Your task to perform on an android device: add a label to a message in the gmail app Image 0: 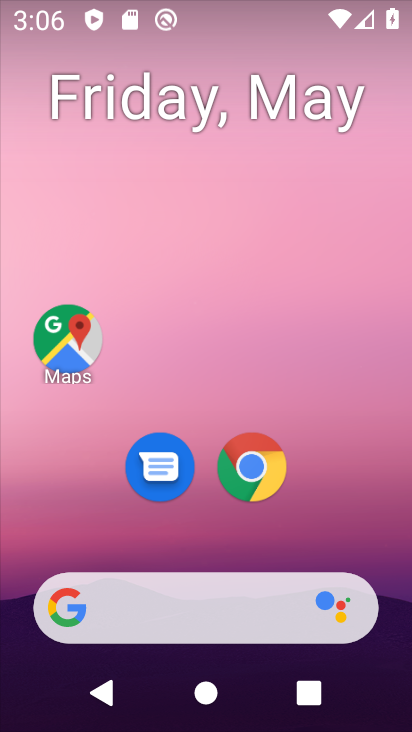
Step 0: drag from (338, 470) to (250, 0)
Your task to perform on an android device: add a label to a message in the gmail app Image 1: 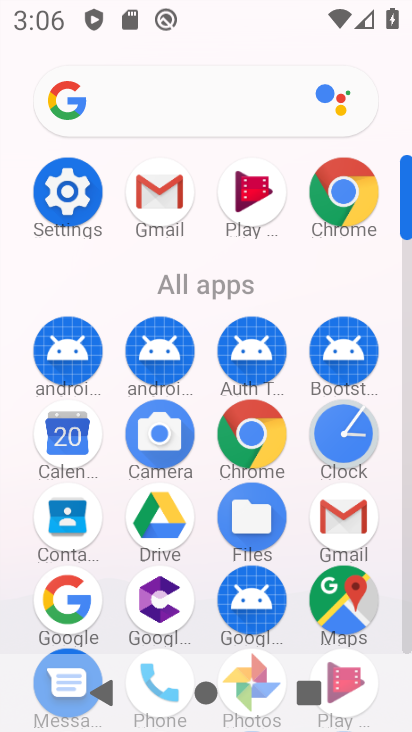
Step 1: click (162, 199)
Your task to perform on an android device: add a label to a message in the gmail app Image 2: 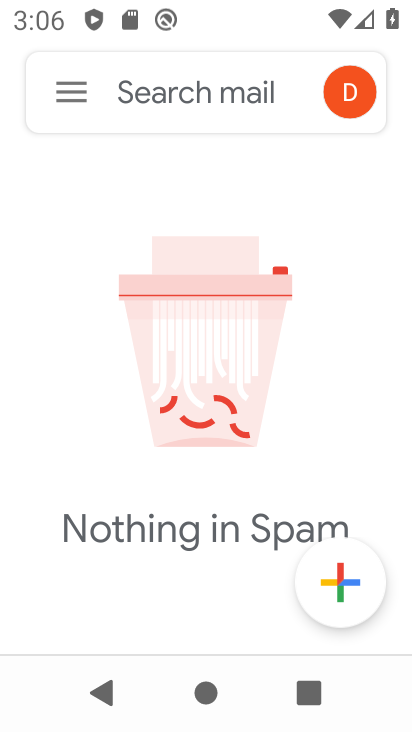
Step 2: click (79, 99)
Your task to perform on an android device: add a label to a message in the gmail app Image 3: 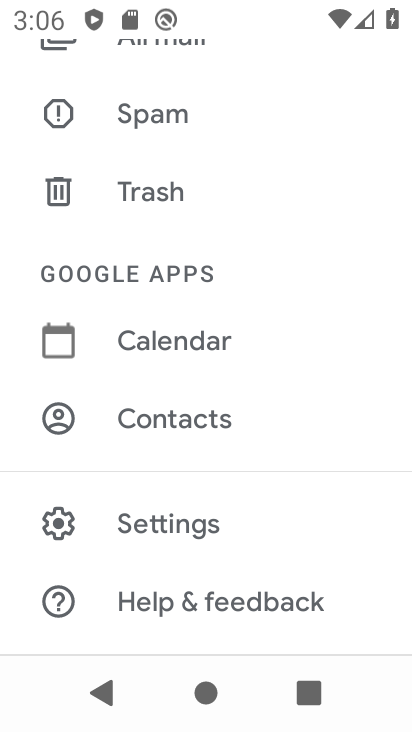
Step 3: drag from (167, 144) to (198, 681)
Your task to perform on an android device: add a label to a message in the gmail app Image 4: 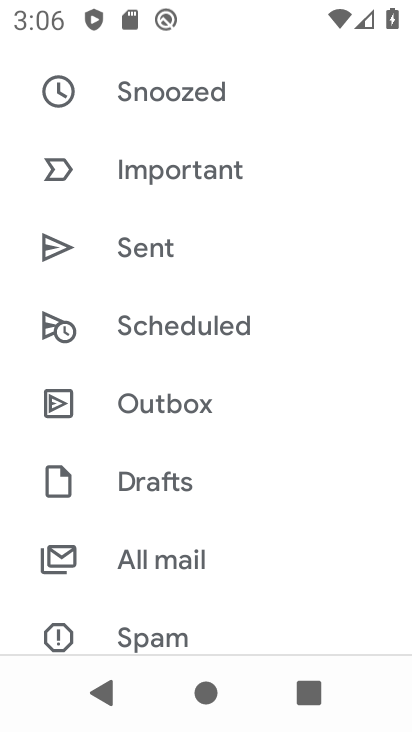
Step 4: drag from (231, 166) to (237, 668)
Your task to perform on an android device: add a label to a message in the gmail app Image 5: 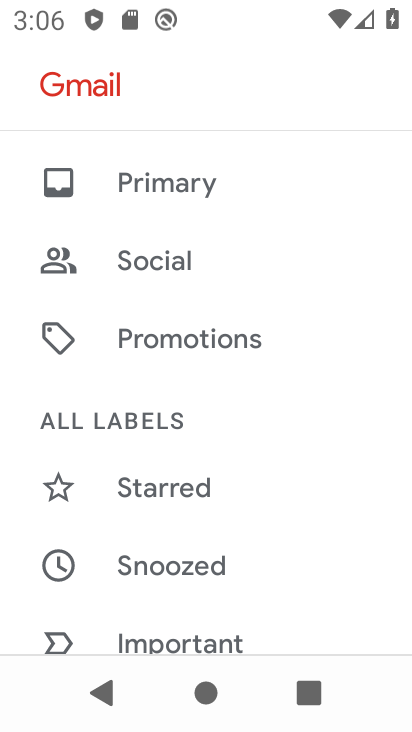
Step 5: drag from (185, 609) to (177, 176)
Your task to perform on an android device: add a label to a message in the gmail app Image 6: 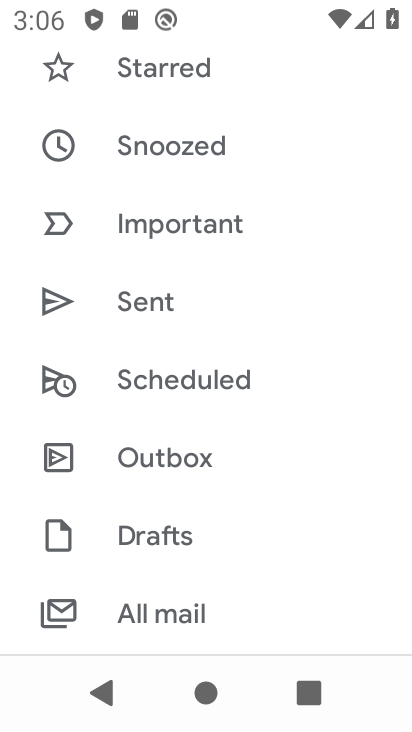
Step 6: click (202, 627)
Your task to perform on an android device: add a label to a message in the gmail app Image 7: 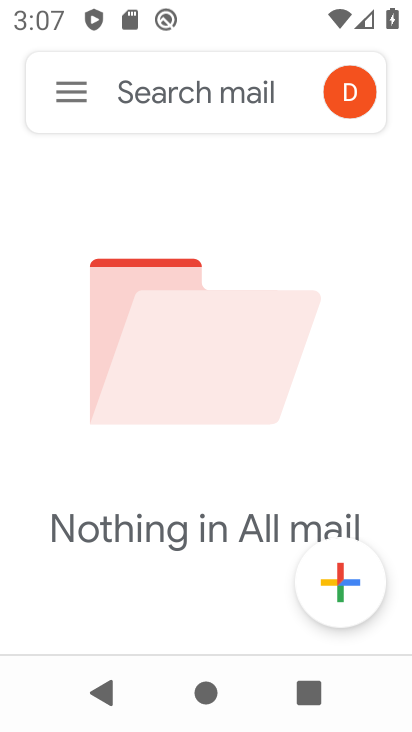
Step 7: task complete